Your task to perform on an android device: Open Google Image 0: 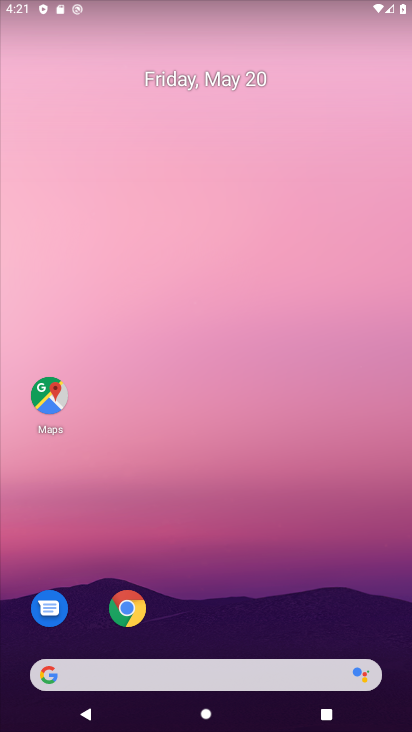
Step 0: drag from (187, 654) to (162, 29)
Your task to perform on an android device: Open Google Image 1: 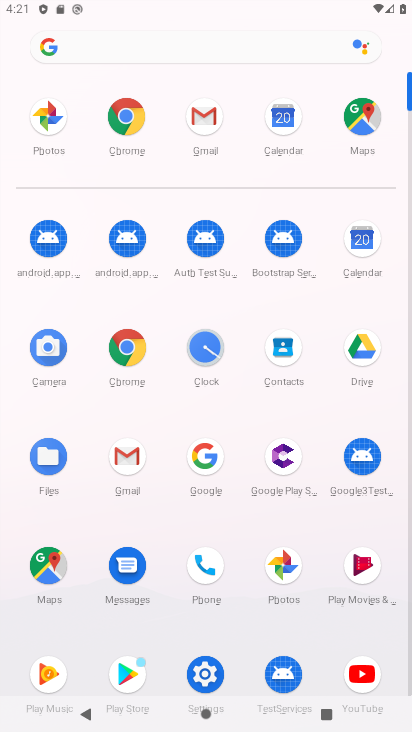
Step 1: click (197, 464)
Your task to perform on an android device: Open Google Image 2: 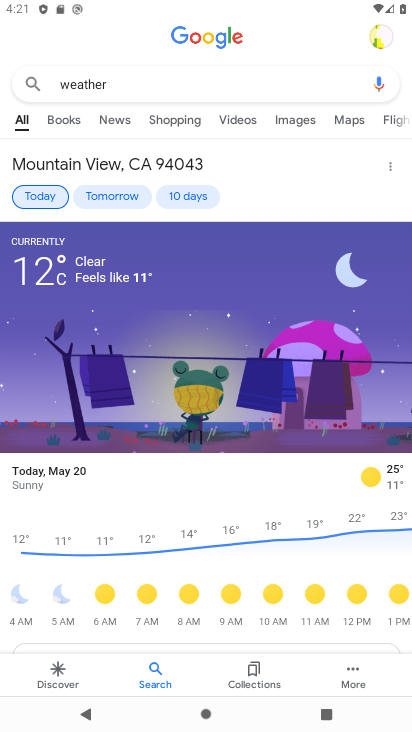
Step 2: task complete